Your task to perform on an android device: View the shopping cart on walmart. Add "lg ultragear" to the cart on walmart, then select checkout. Image 0: 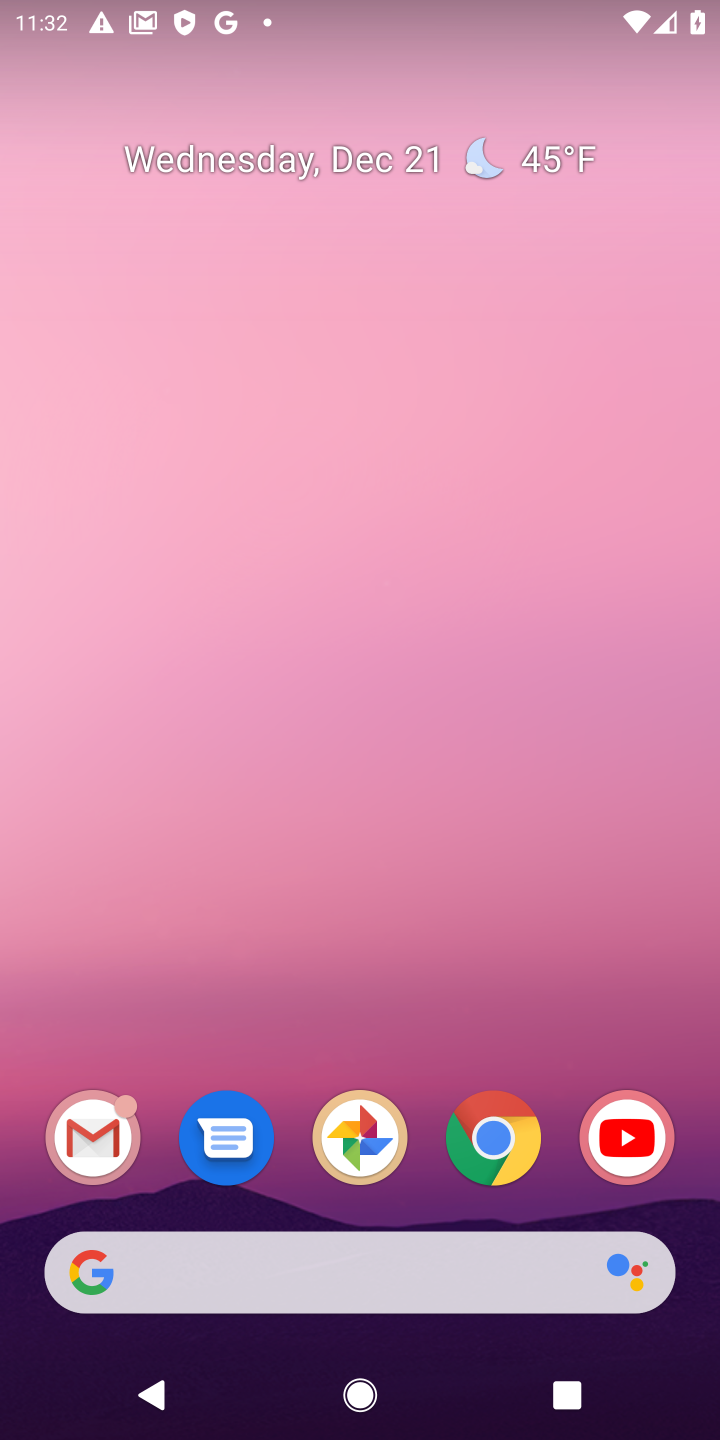
Step 0: click (502, 1157)
Your task to perform on an android device: View the shopping cart on walmart. Add "lg ultragear" to the cart on walmart, then select checkout. Image 1: 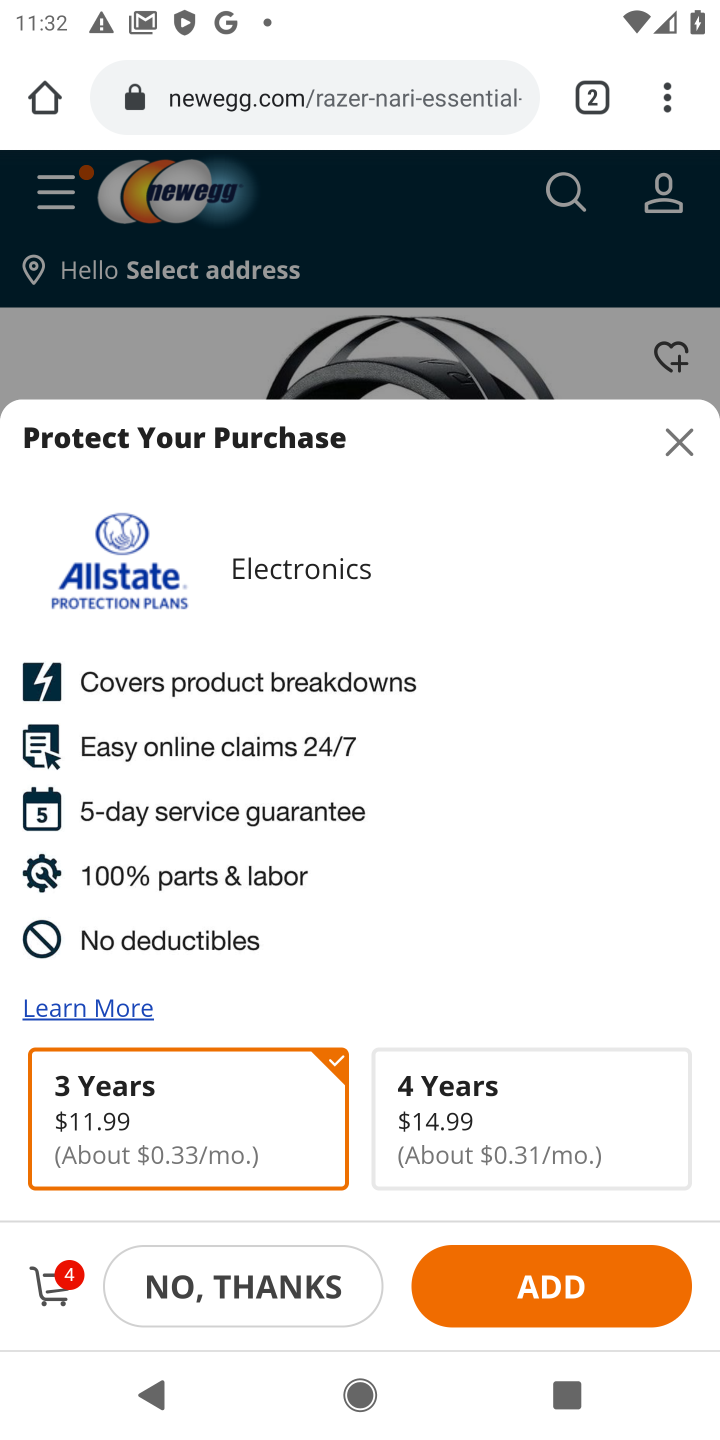
Step 1: click (267, 102)
Your task to perform on an android device: View the shopping cart on walmart. Add "lg ultragear" to the cart on walmart, then select checkout. Image 2: 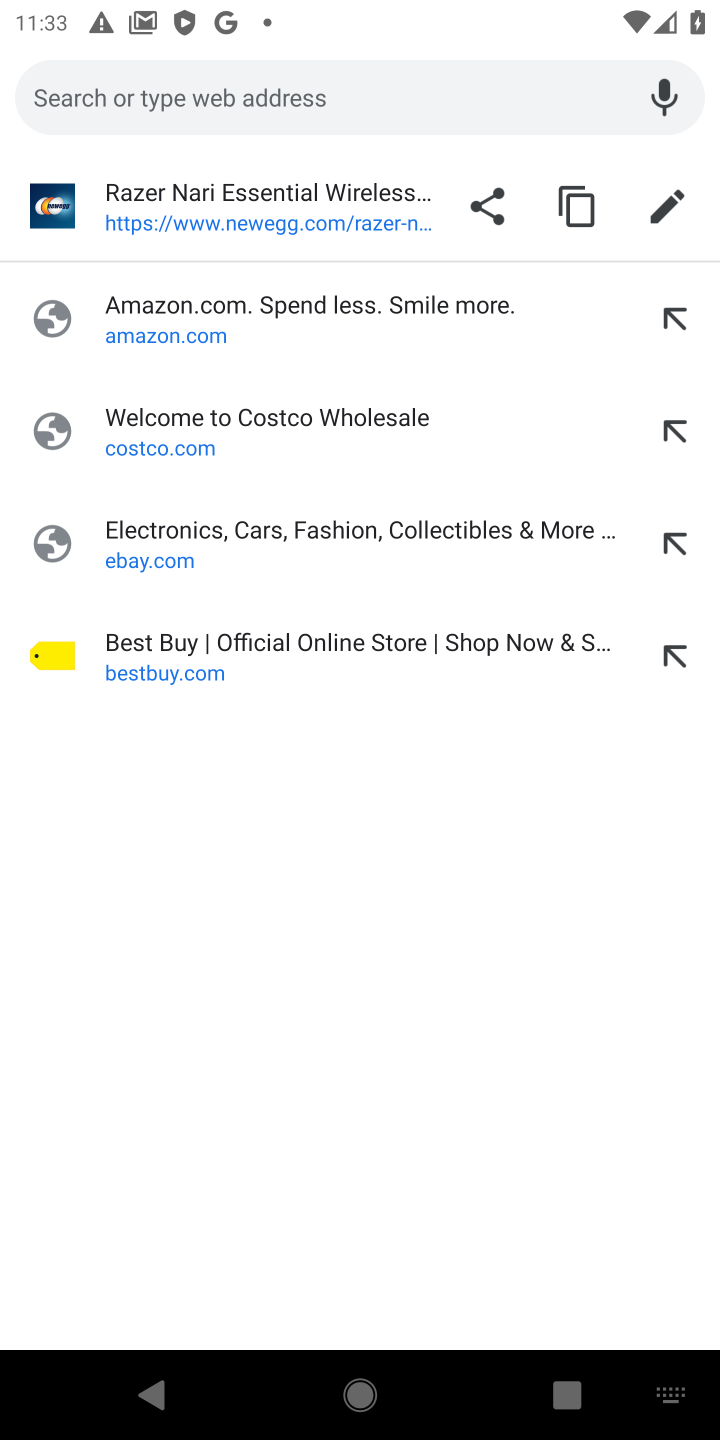
Step 2: type "walmart.com"
Your task to perform on an android device: View the shopping cart on walmart. Add "lg ultragear" to the cart on walmart, then select checkout. Image 3: 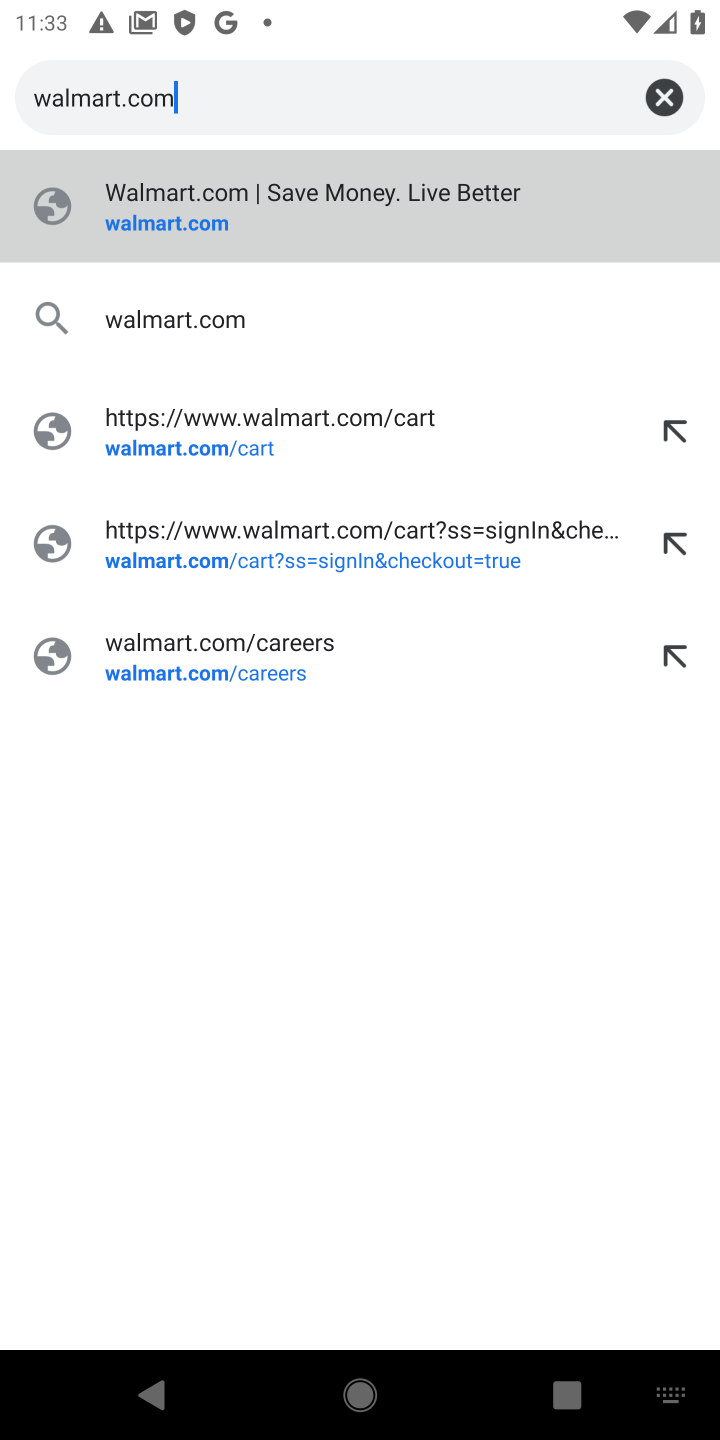
Step 3: click (145, 235)
Your task to perform on an android device: View the shopping cart on walmart. Add "lg ultragear" to the cart on walmart, then select checkout. Image 4: 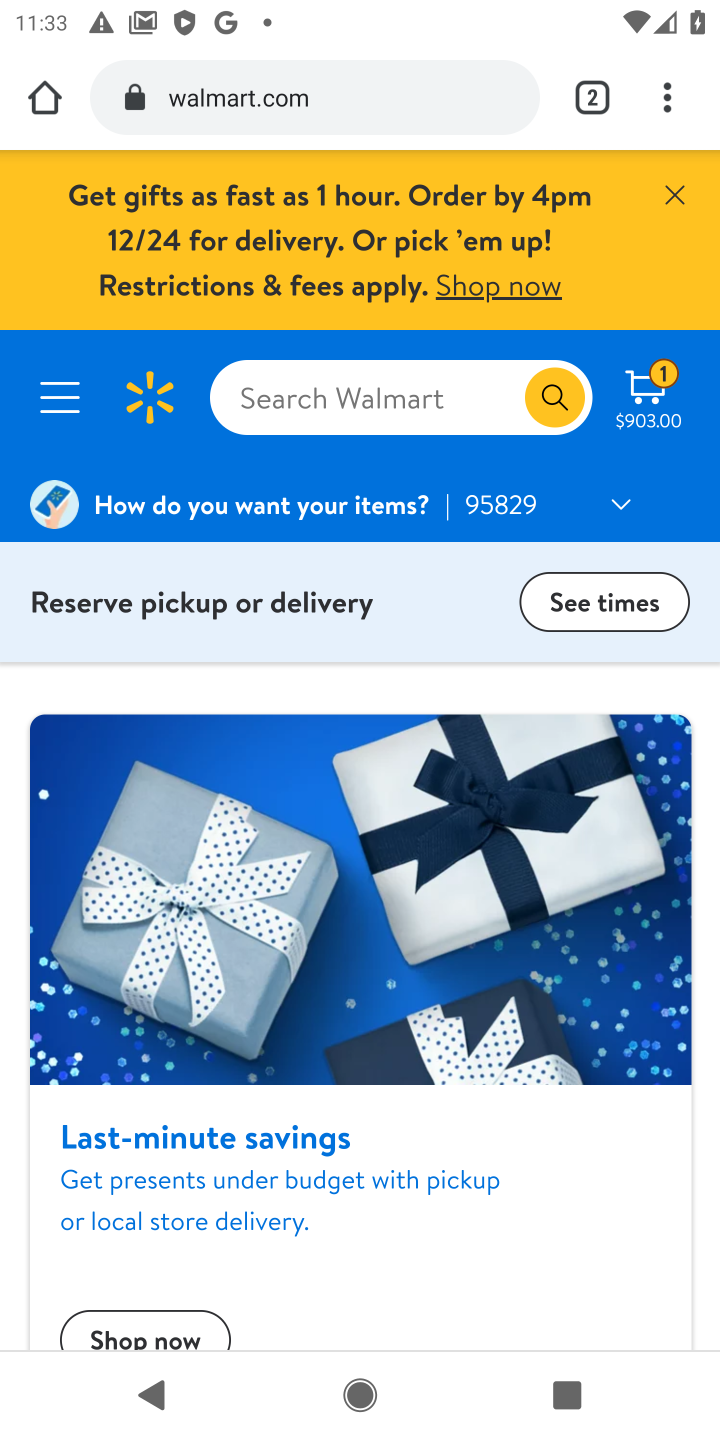
Step 4: click (649, 420)
Your task to perform on an android device: View the shopping cart on walmart. Add "lg ultragear" to the cart on walmart, then select checkout. Image 5: 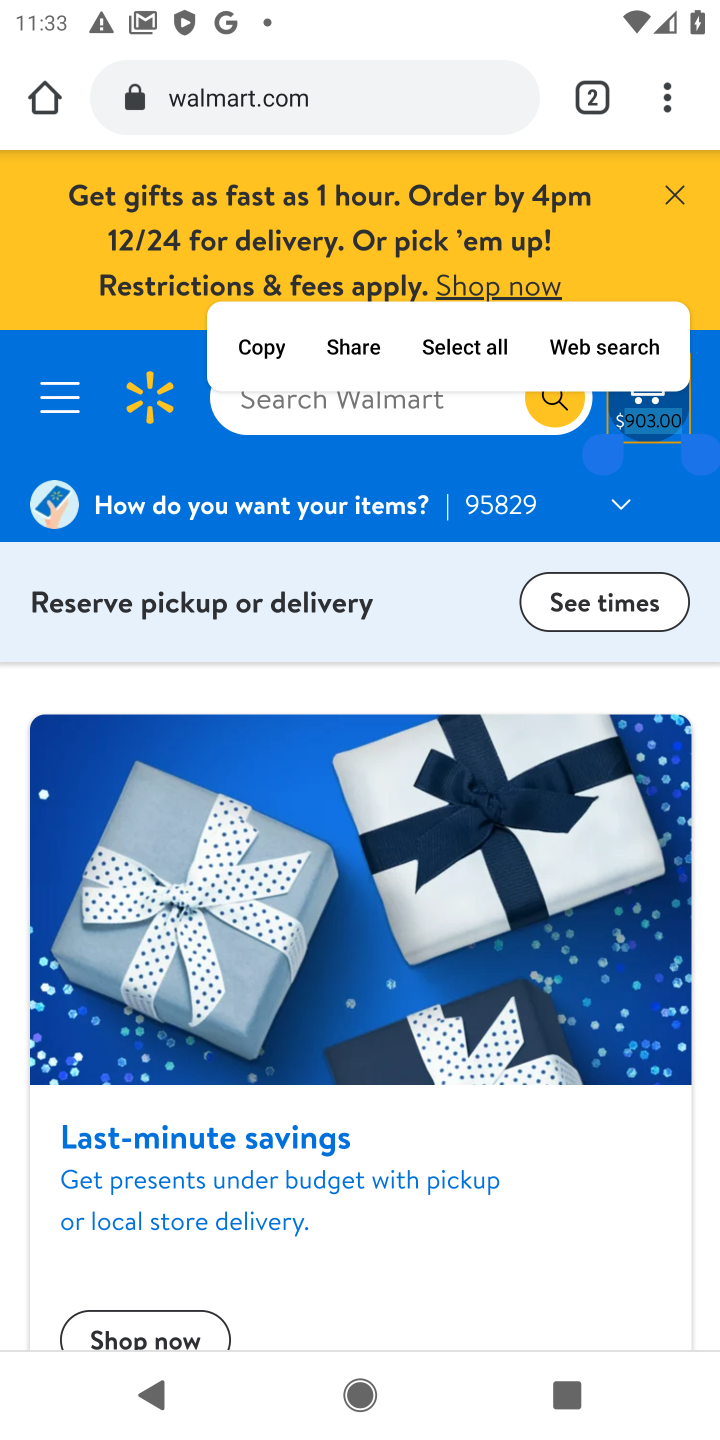
Step 5: click (663, 425)
Your task to perform on an android device: View the shopping cart on walmart. Add "lg ultragear" to the cart on walmart, then select checkout. Image 6: 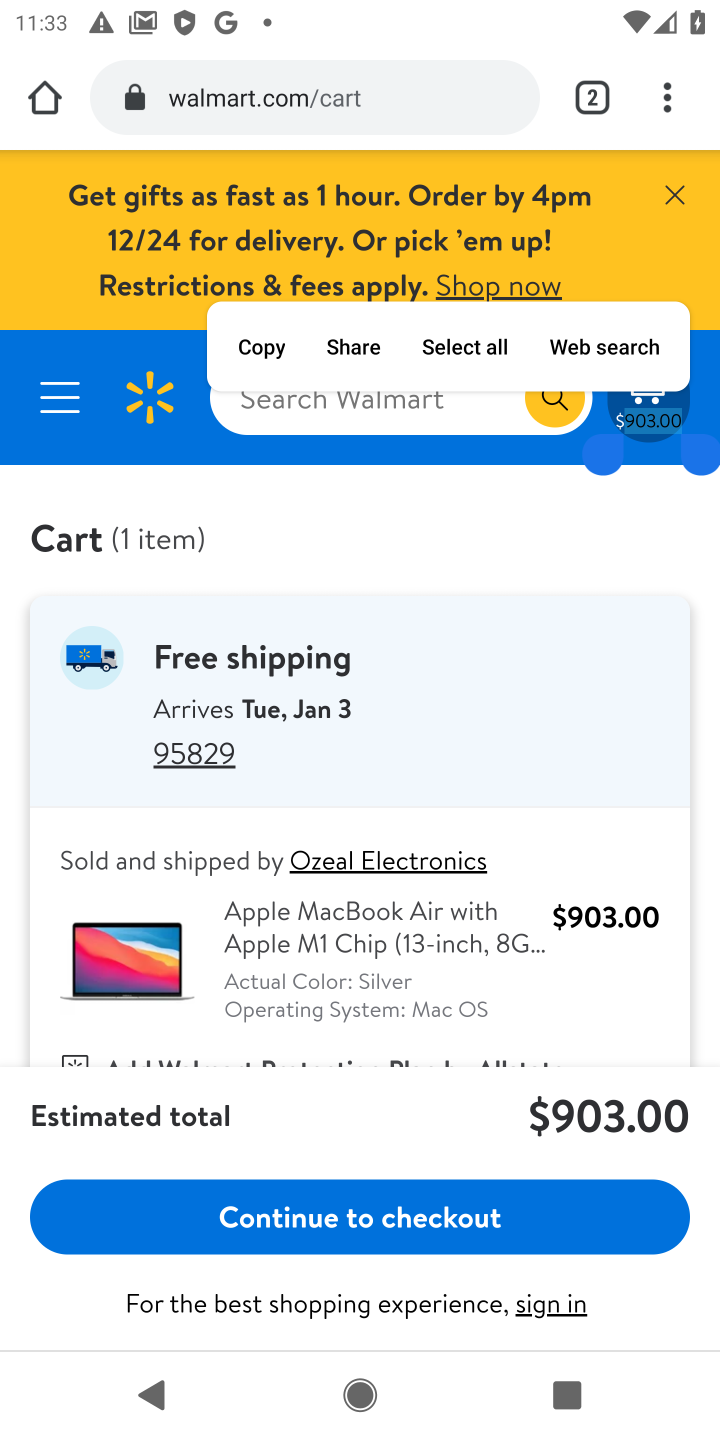
Step 6: click (492, 407)
Your task to perform on an android device: View the shopping cart on walmart. Add "lg ultragear" to the cart on walmart, then select checkout. Image 7: 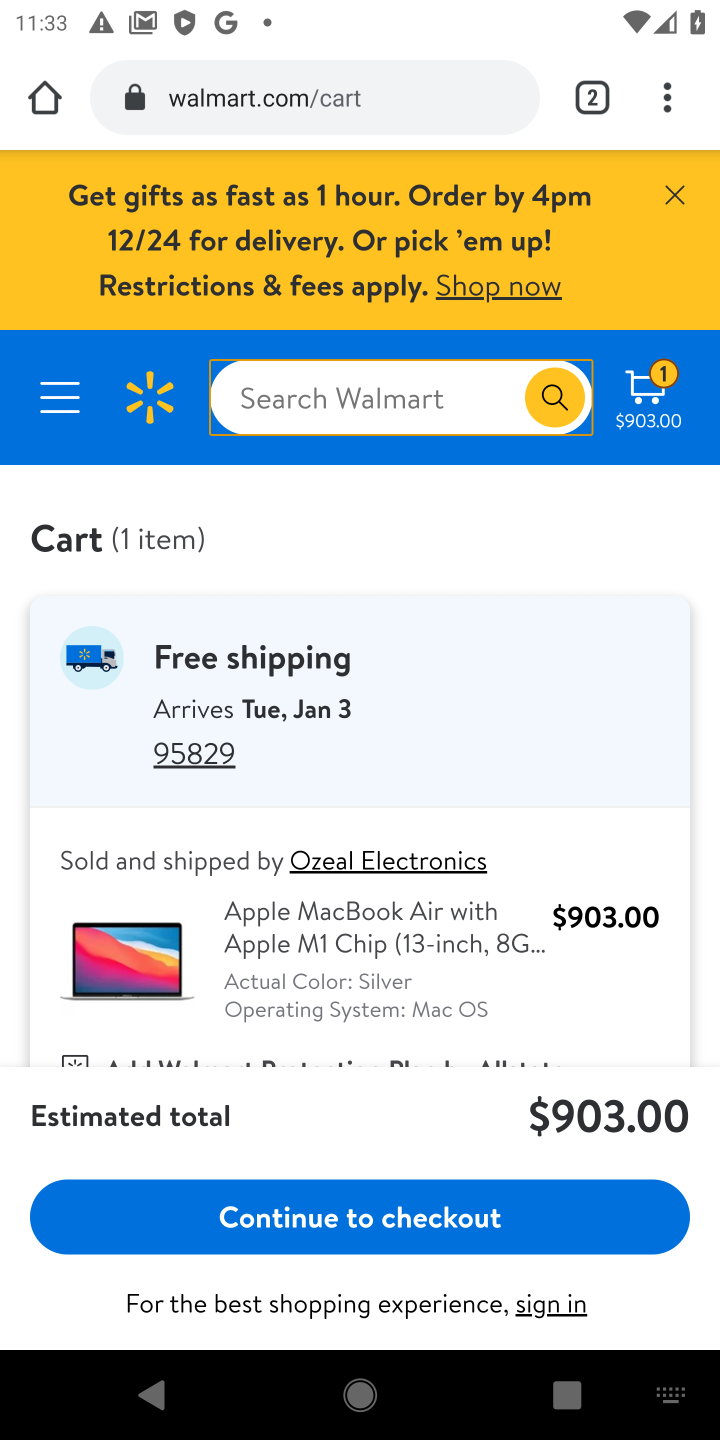
Step 7: click (394, 386)
Your task to perform on an android device: View the shopping cart on walmart. Add "lg ultragear" to the cart on walmart, then select checkout. Image 8: 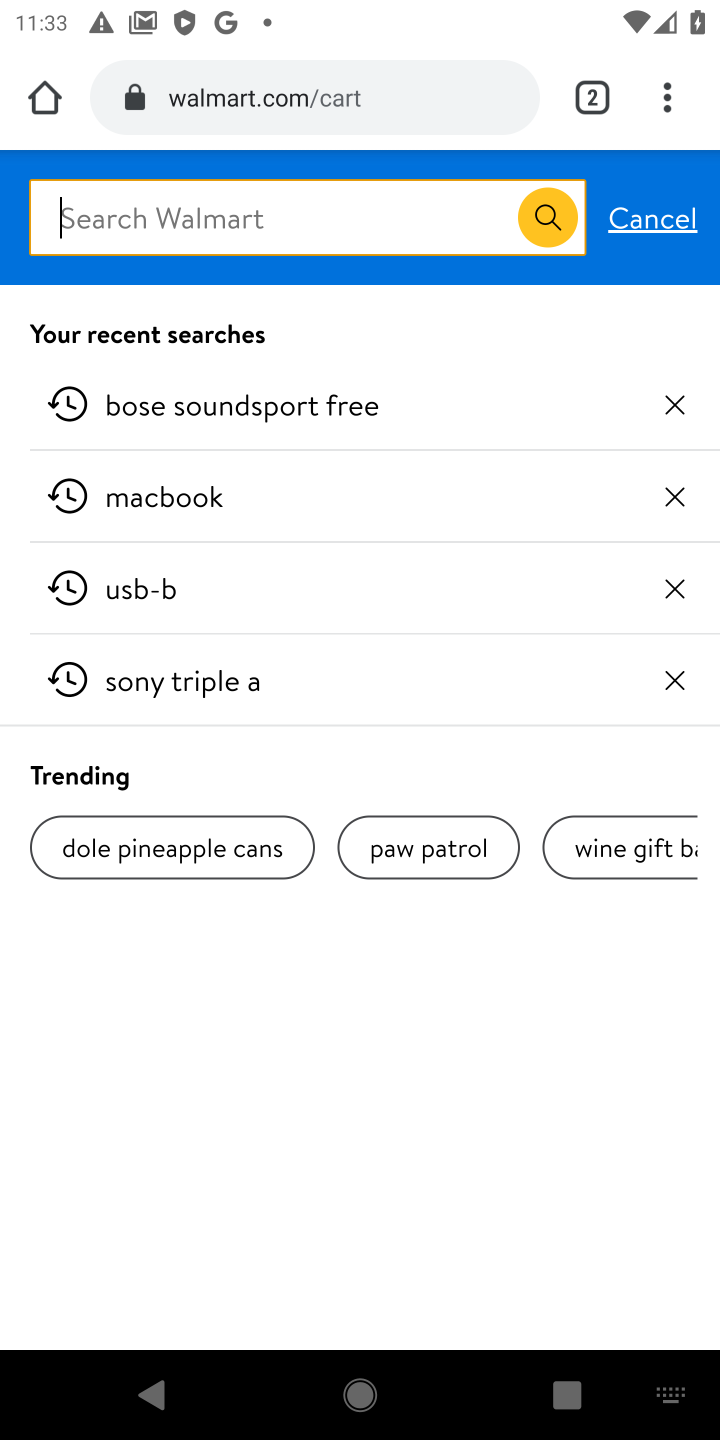
Step 8: type "lg ultragear"
Your task to perform on an android device: View the shopping cart on walmart. Add "lg ultragear" to the cart on walmart, then select checkout. Image 9: 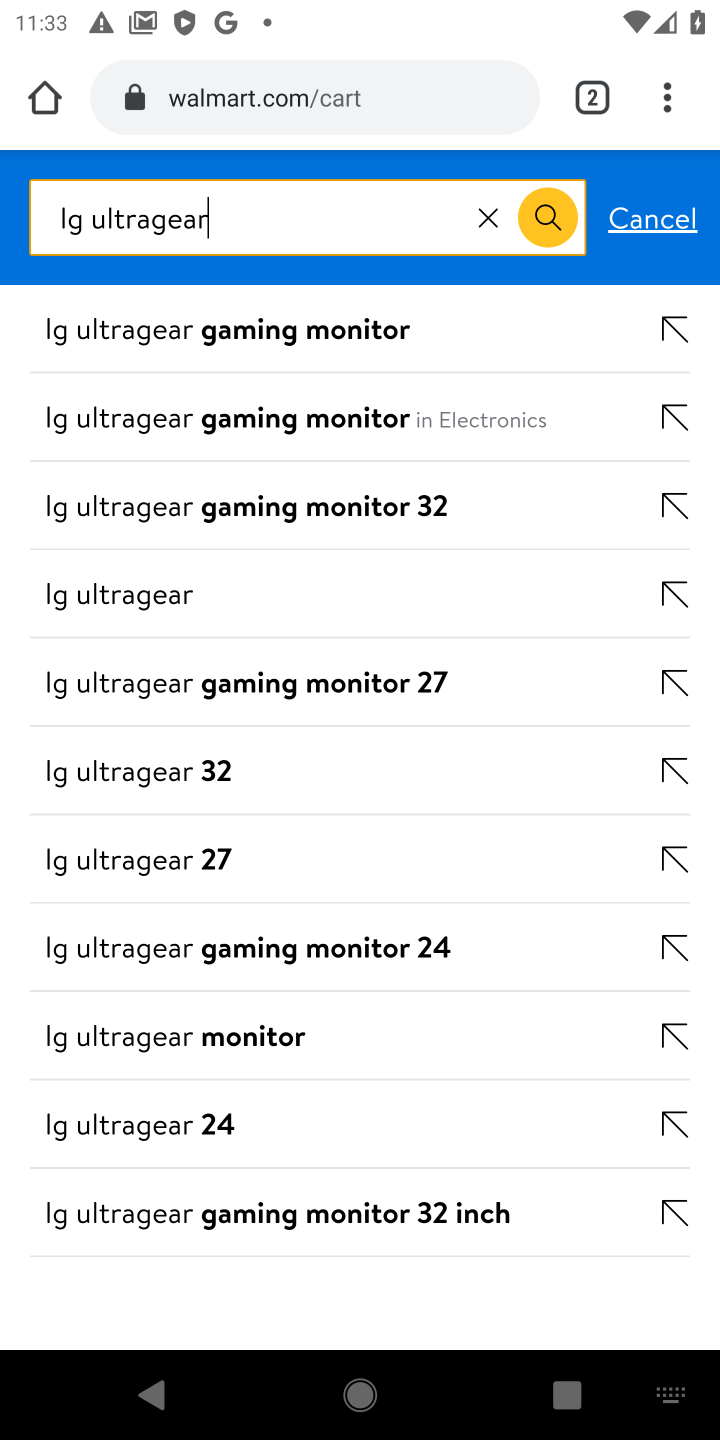
Step 9: click (122, 605)
Your task to perform on an android device: View the shopping cart on walmart. Add "lg ultragear" to the cart on walmart, then select checkout. Image 10: 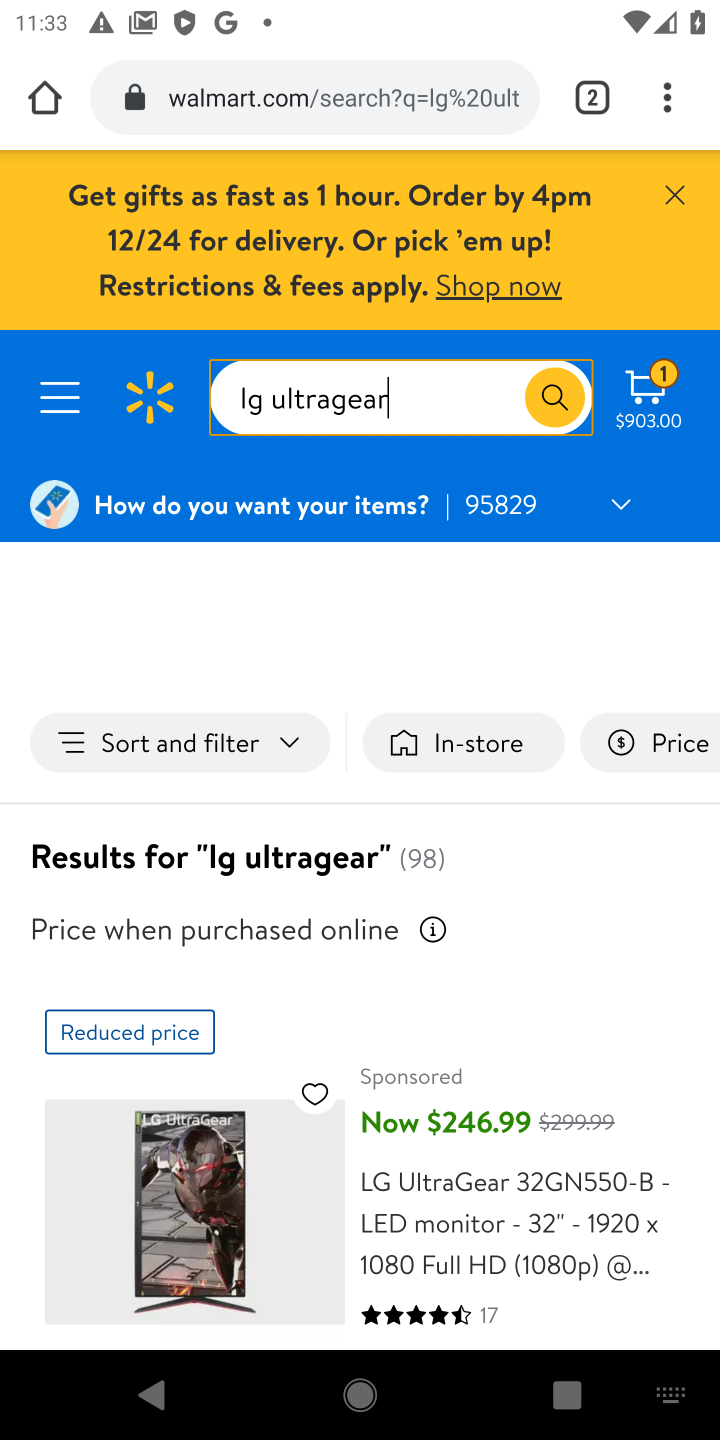
Step 10: drag from (381, 861) to (394, 447)
Your task to perform on an android device: View the shopping cart on walmart. Add "lg ultragear" to the cart on walmart, then select checkout. Image 11: 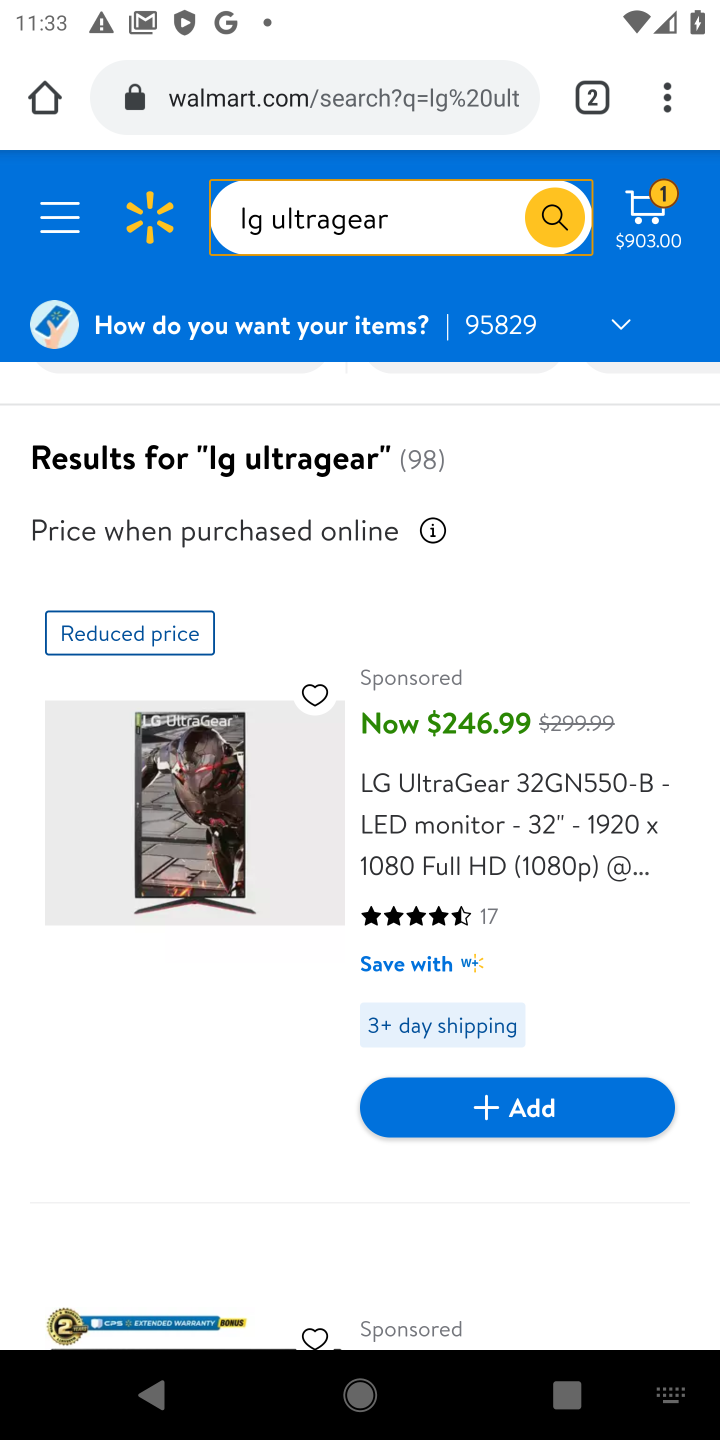
Step 11: click (514, 1106)
Your task to perform on an android device: View the shopping cart on walmart. Add "lg ultragear" to the cart on walmart, then select checkout. Image 12: 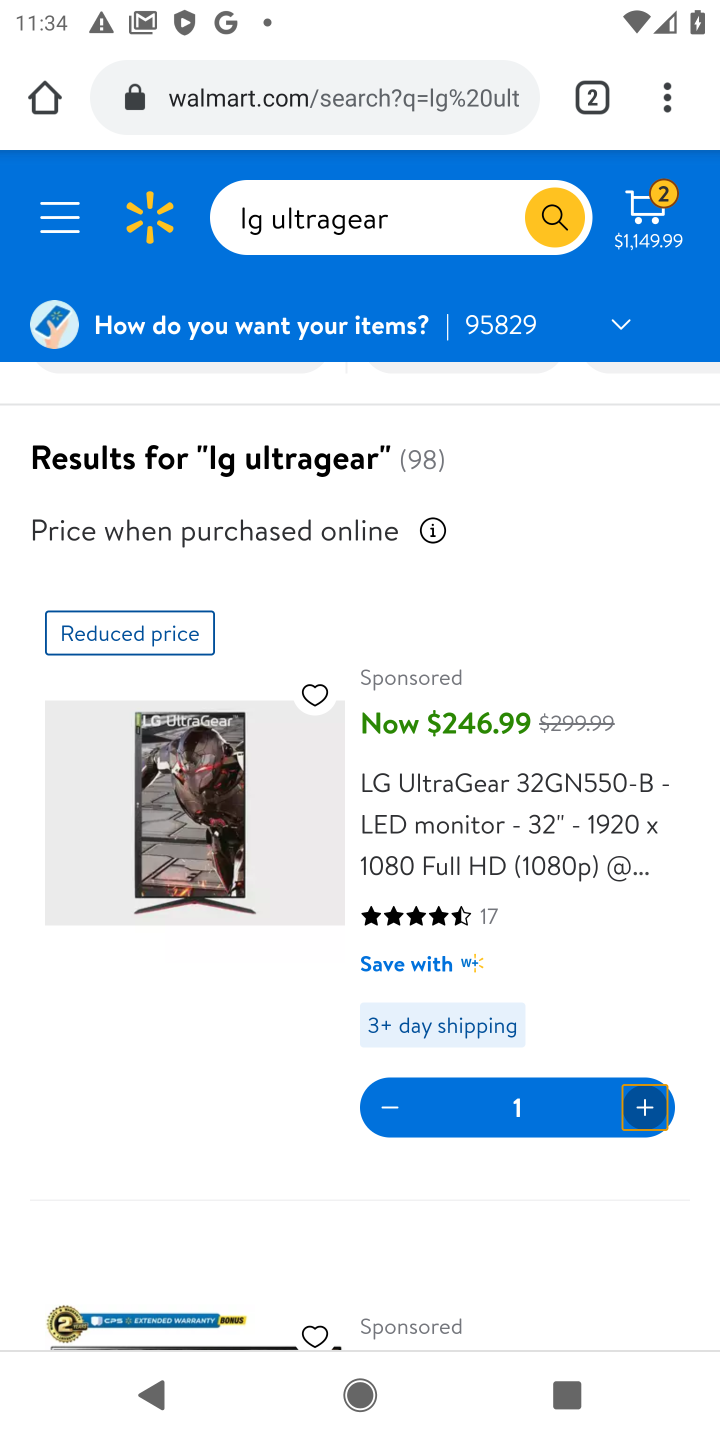
Step 12: click (664, 236)
Your task to perform on an android device: View the shopping cart on walmart. Add "lg ultragear" to the cart on walmart, then select checkout. Image 13: 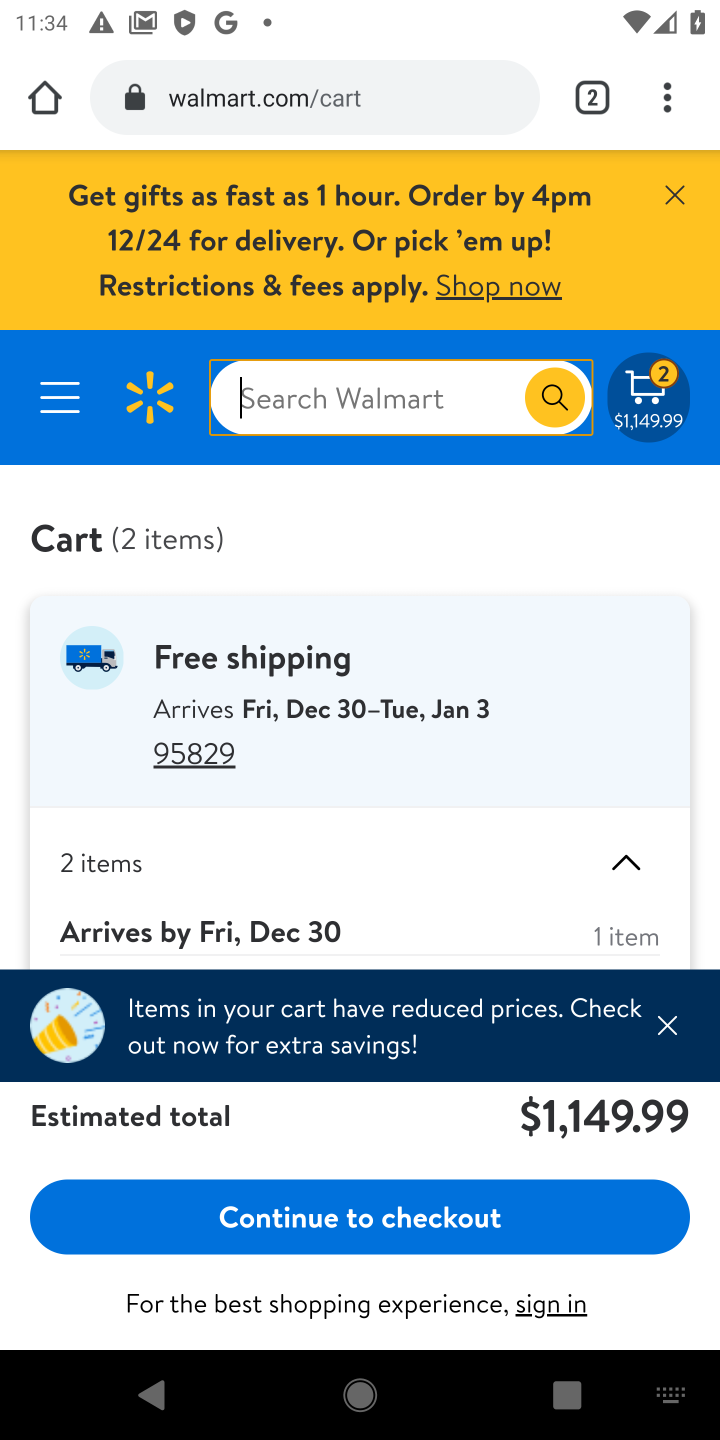
Step 13: click (291, 1213)
Your task to perform on an android device: View the shopping cart on walmart. Add "lg ultragear" to the cart on walmart, then select checkout. Image 14: 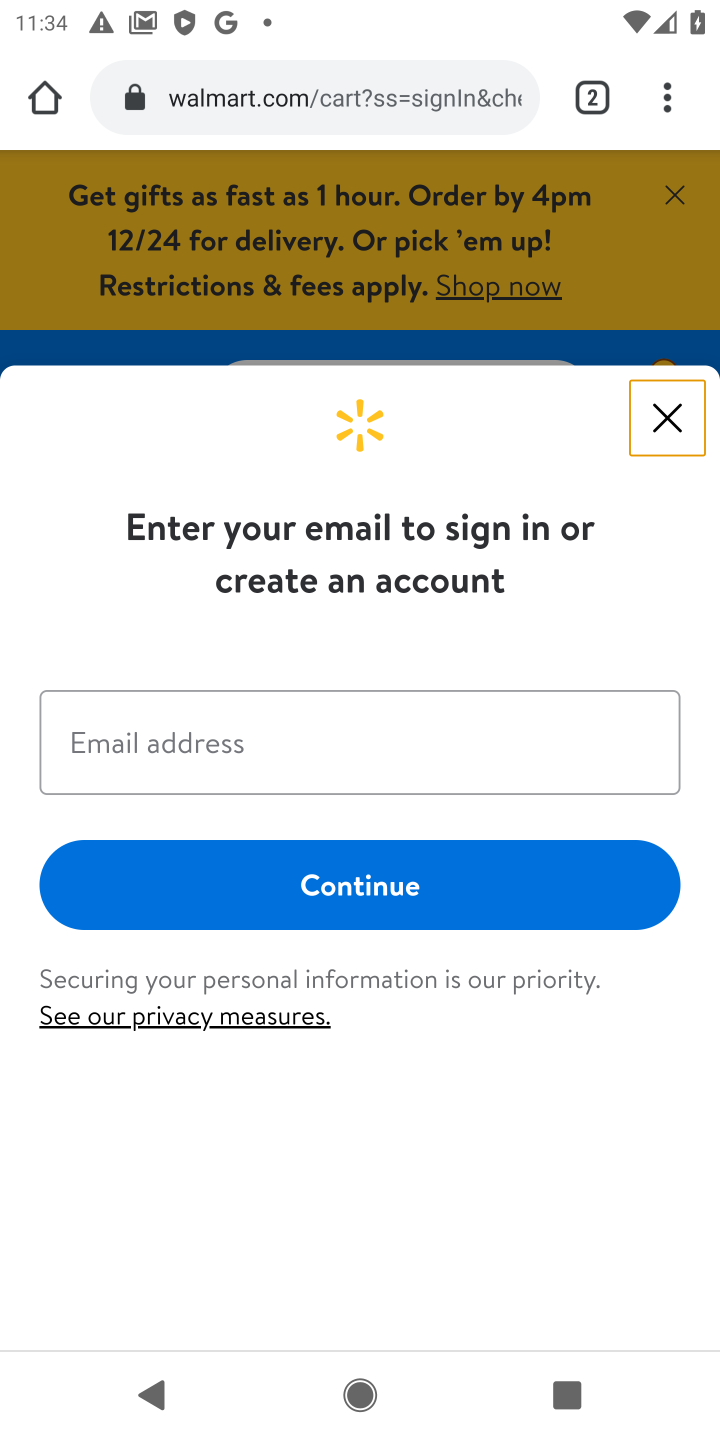
Step 14: task complete